Your task to perform on an android device: Open settings Image 0: 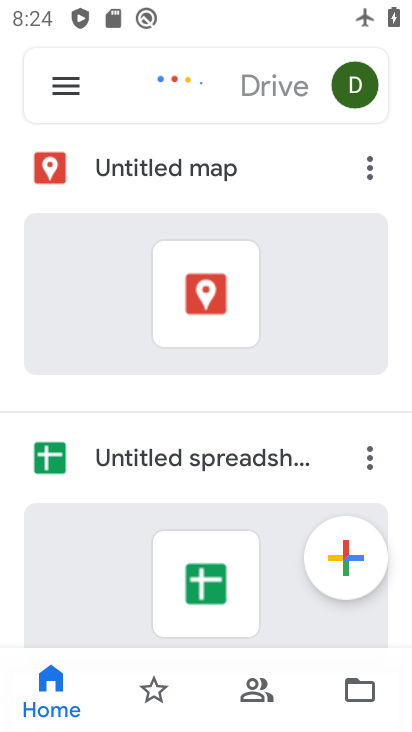
Step 0: press home button
Your task to perform on an android device: Open settings Image 1: 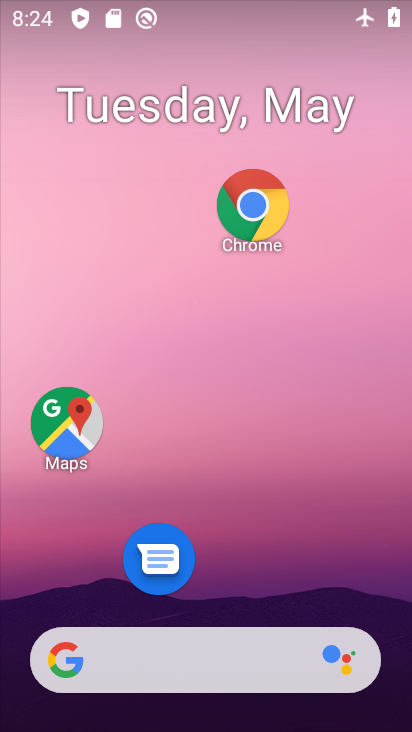
Step 1: drag from (235, 583) to (239, 235)
Your task to perform on an android device: Open settings Image 2: 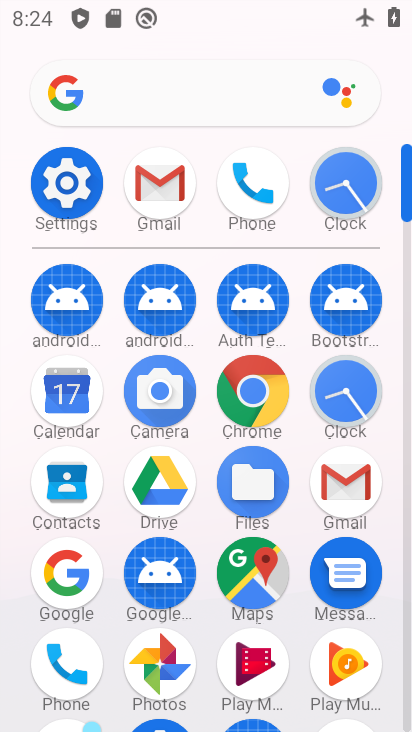
Step 2: click (43, 185)
Your task to perform on an android device: Open settings Image 3: 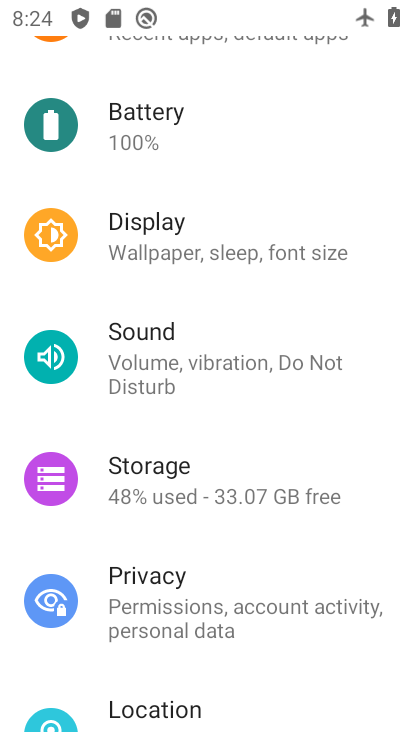
Step 3: task complete